Your task to perform on an android device: open chrome and create a bookmark for the current page Image 0: 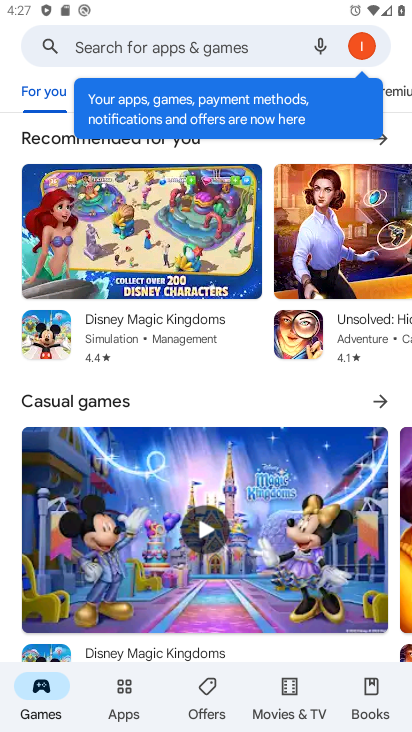
Step 0: press home button
Your task to perform on an android device: open chrome and create a bookmark for the current page Image 1: 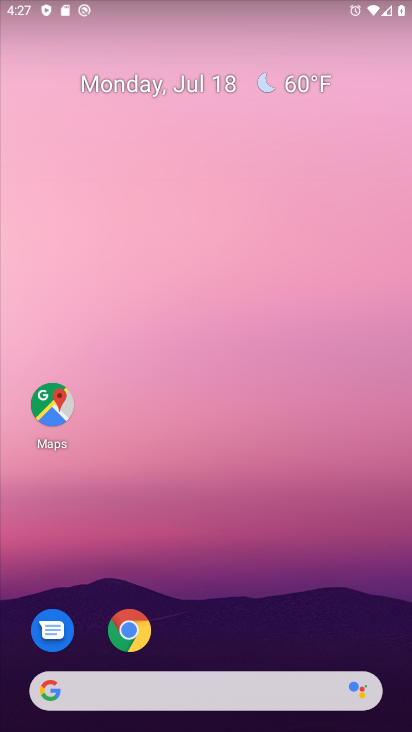
Step 1: click (118, 631)
Your task to perform on an android device: open chrome and create a bookmark for the current page Image 2: 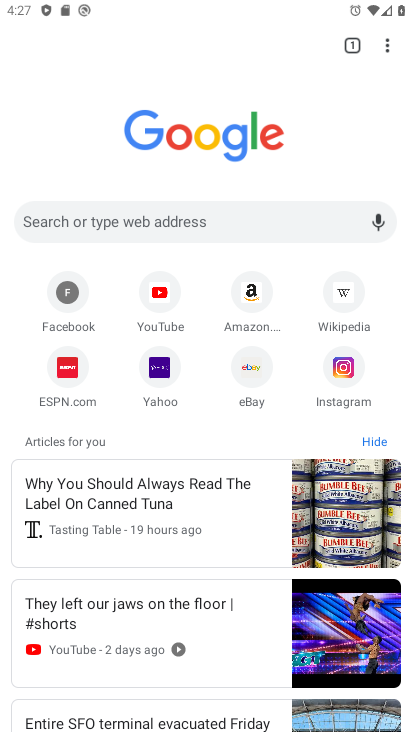
Step 2: click (391, 48)
Your task to perform on an android device: open chrome and create a bookmark for the current page Image 3: 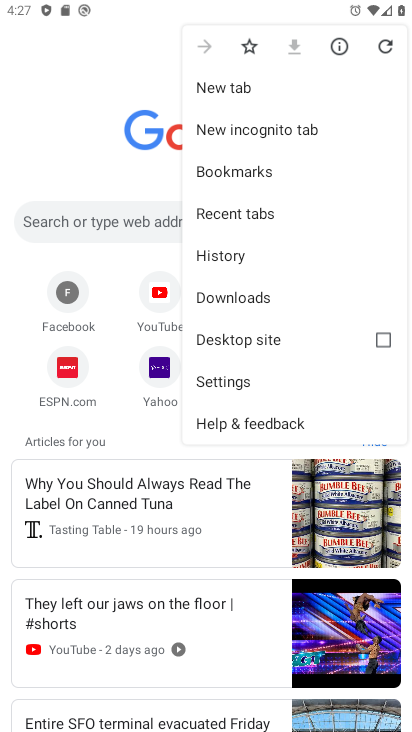
Step 3: click (246, 47)
Your task to perform on an android device: open chrome and create a bookmark for the current page Image 4: 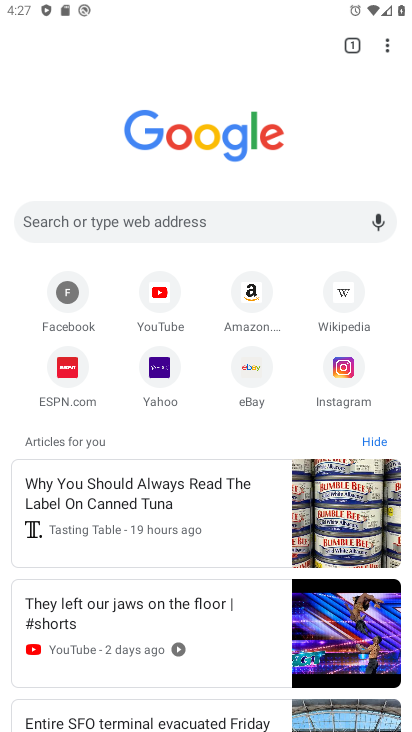
Step 4: task complete